Your task to perform on an android device: choose inbox layout in the gmail app Image 0: 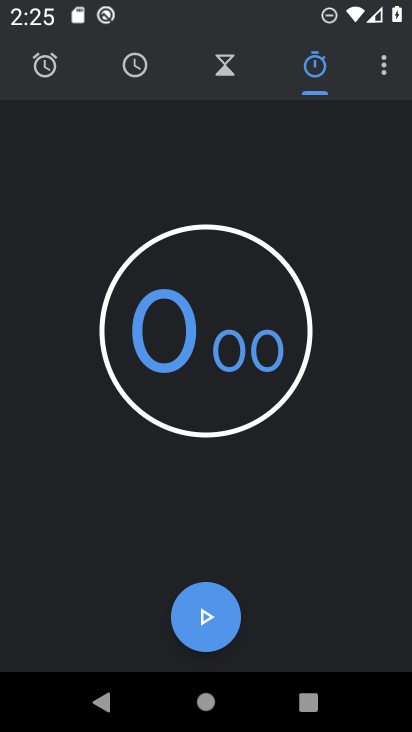
Step 0: press back button
Your task to perform on an android device: choose inbox layout in the gmail app Image 1: 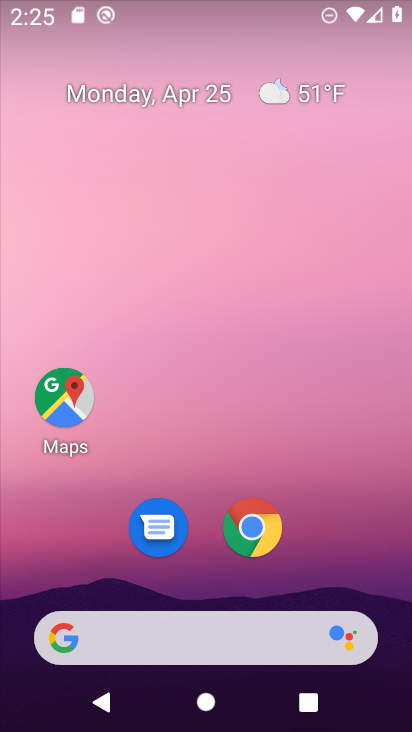
Step 1: drag from (340, 482) to (320, 46)
Your task to perform on an android device: choose inbox layout in the gmail app Image 2: 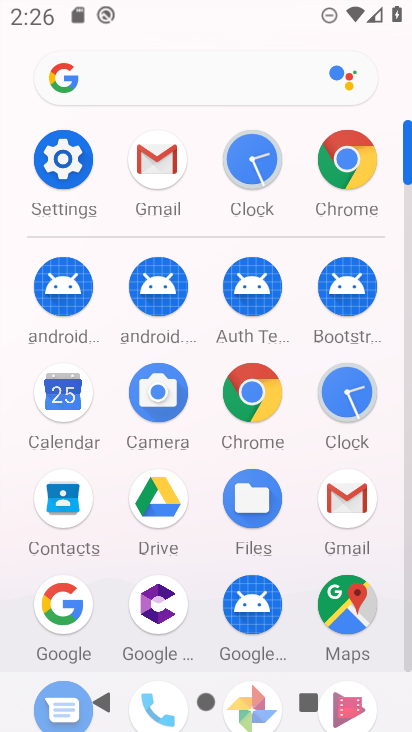
Step 2: drag from (19, 574) to (17, 267)
Your task to perform on an android device: choose inbox layout in the gmail app Image 3: 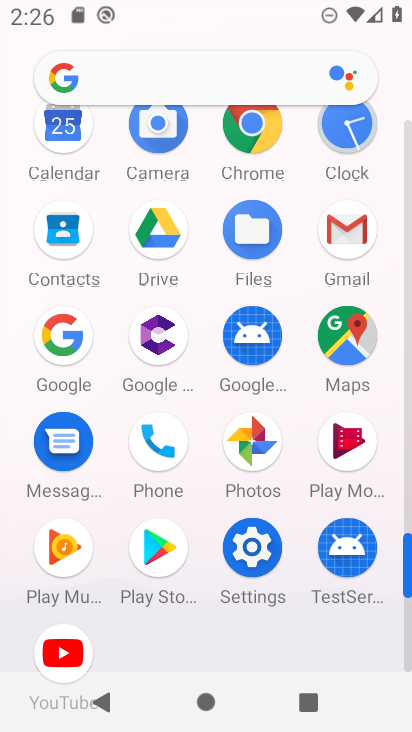
Step 3: click (347, 222)
Your task to perform on an android device: choose inbox layout in the gmail app Image 4: 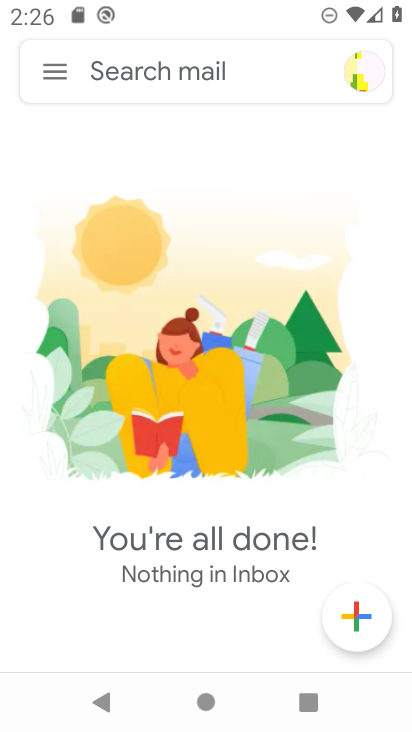
Step 4: click (55, 67)
Your task to perform on an android device: choose inbox layout in the gmail app Image 5: 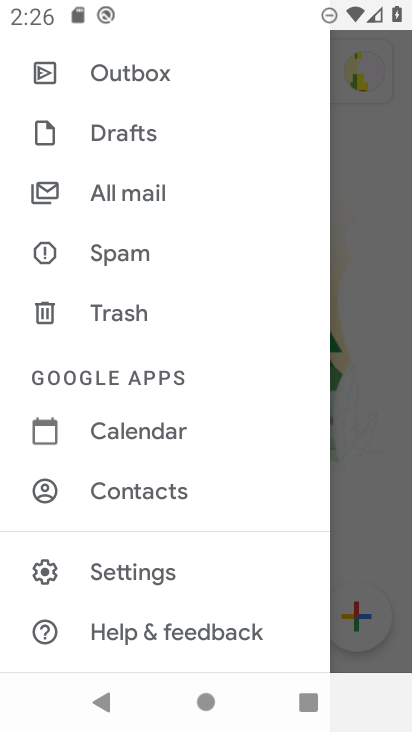
Step 5: drag from (218, 219) to (221, 539)
Your task to perform on an android device: choose inbox layout in the gmail app Image 6: 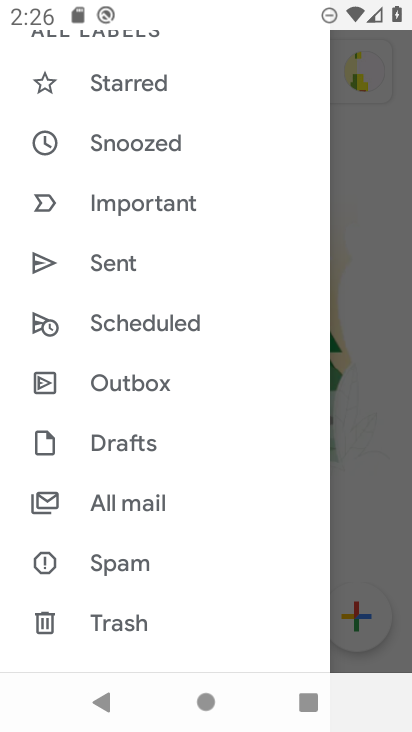
Step 6: drag from (222, 241) to (208, 539)
Your task to perform on an android device: choose inbox layout in the gmail app Image 7: 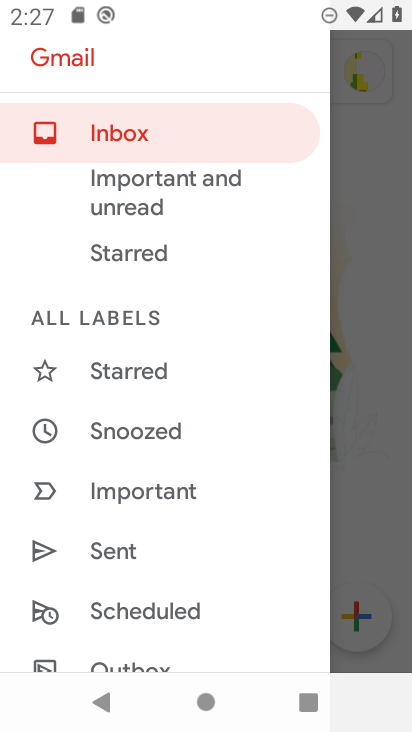
Step 7: drag from (202, 576) to (195, 274)
Your task to perform on an android device: choose inbox layout in the gmail app Image 8: 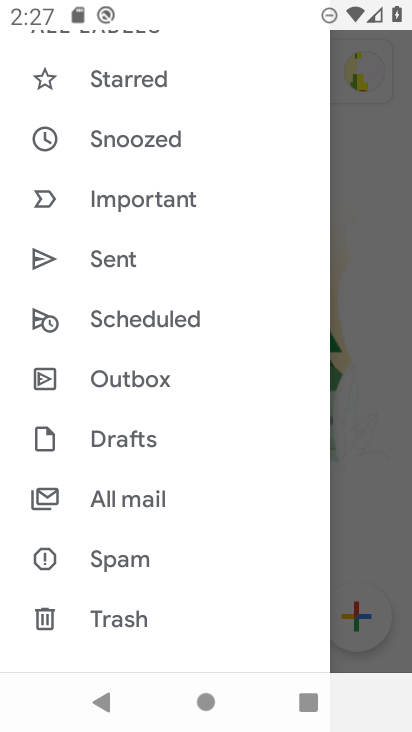
Step 8: drag from (191, 598) to (208, 138)
Your task to perform on an android device: choose inbox layout in the gmail app Image 9: 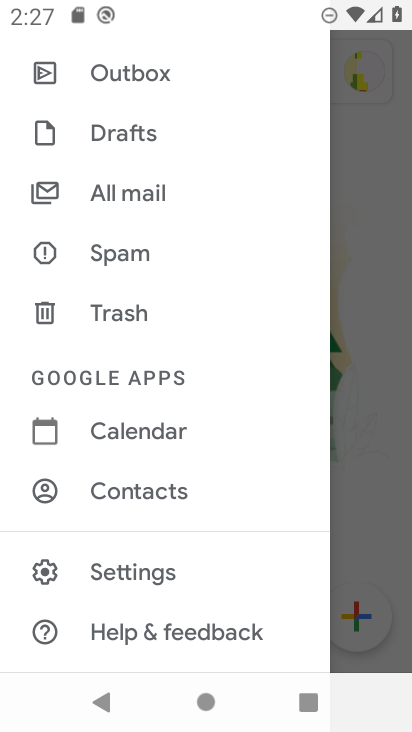
Step 9: click (167, 561)
Your task to perform on an android device: choose inbox layout in the gmail app Image 10: 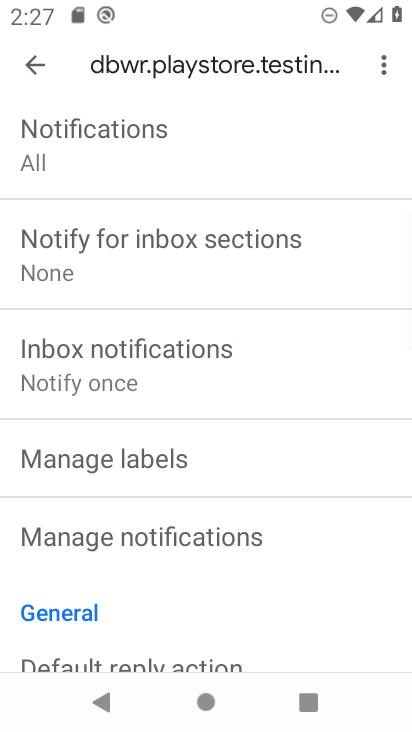
Step 10: drag from (242, 532) to (222, 165)
Your task to perform on an android device: choose inbox layout in the gmail app Image 11: 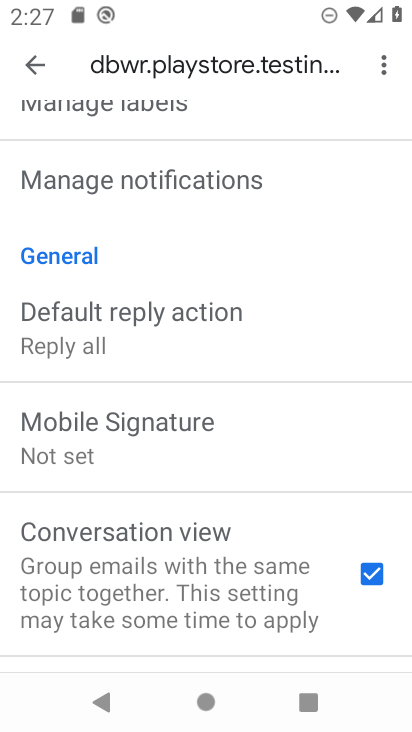
Step 11: drag from (220, 558) to (240, 165)
Your task to perform on an android device: choose inbox layout in the gmail app Image 12: 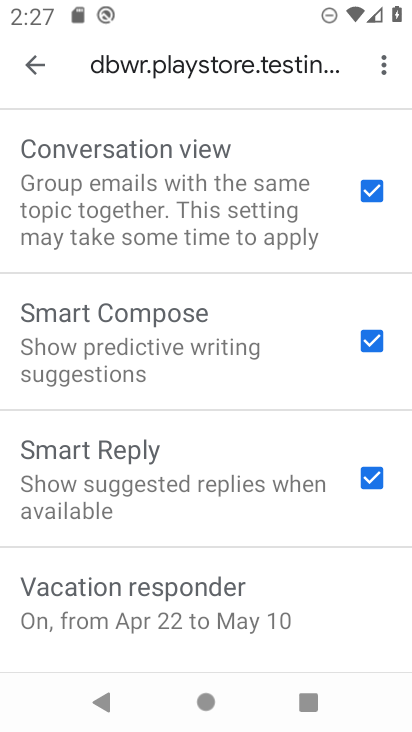
Step 12: drag from (219, 155) to (212, 556)
Your task to perform on an android device: choose inbox layout in the gmail app Image 13: 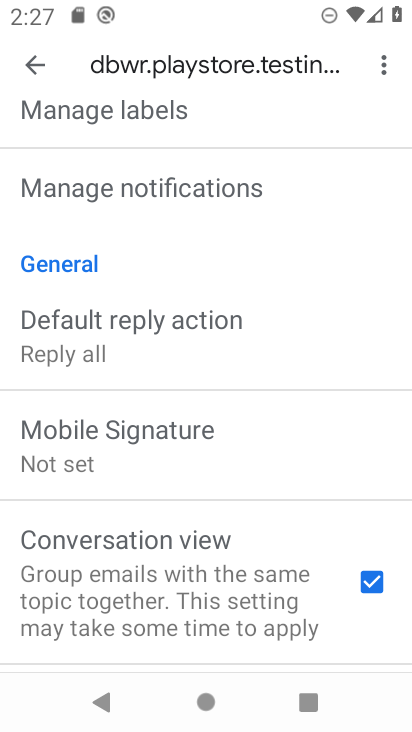
Step 13: drag from (183, 379) to (189, 651)
Your task to perform on an android device: choose inbox layout in the gmail app Image 14: 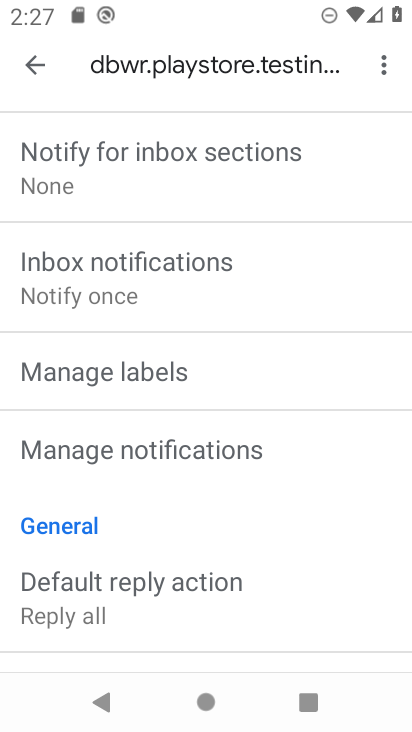
Step 14: drag from (194, 381) to (192, 614)
Your task to perform on an android device: choose inbox layout in the gmail app Image 15: 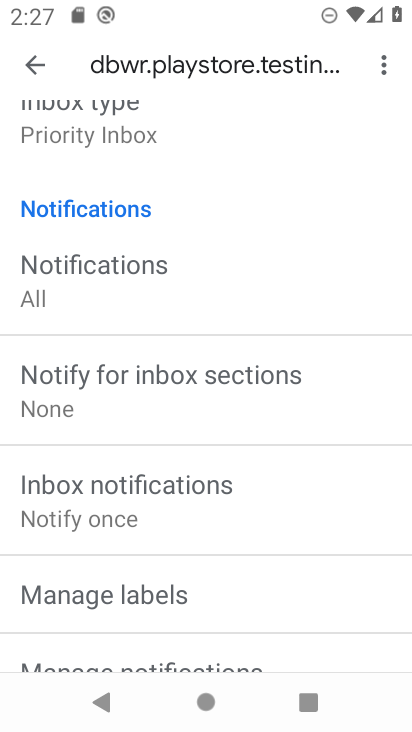
Step 15: drag from (176, 308) to (190, 653)
Your task to perform on an android device: choose inbox layout in the gmail app Image 16: 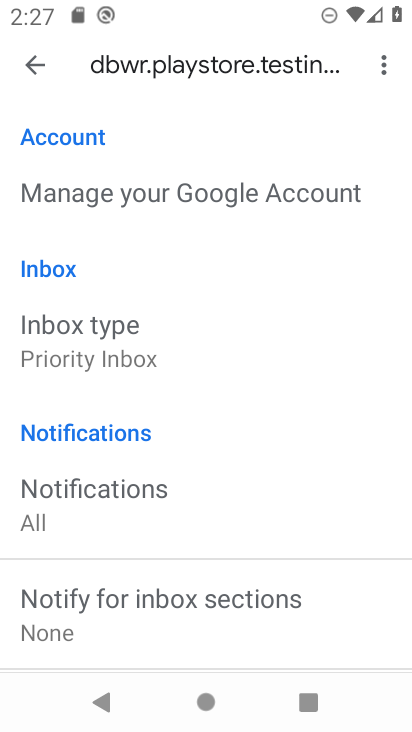
Step 16: click (140, 347)
Your task to perform on an android device: choose inbox layout in the gmail app Image 17: 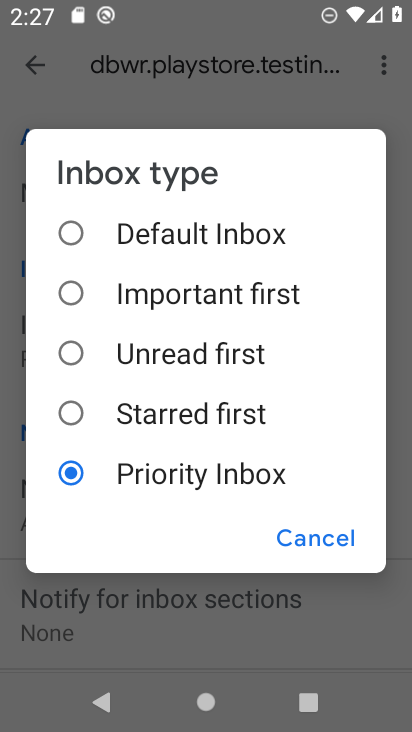
Step 17: click (140, 347)
Your task to perform on an android device: choose inbox layout in the gmail app Image 18: 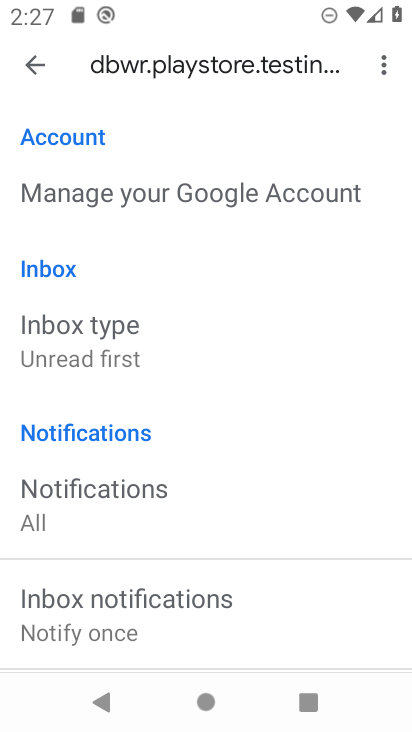
Step 18: task complete